Your task to perform on an android device: What's the weather? Image 0: 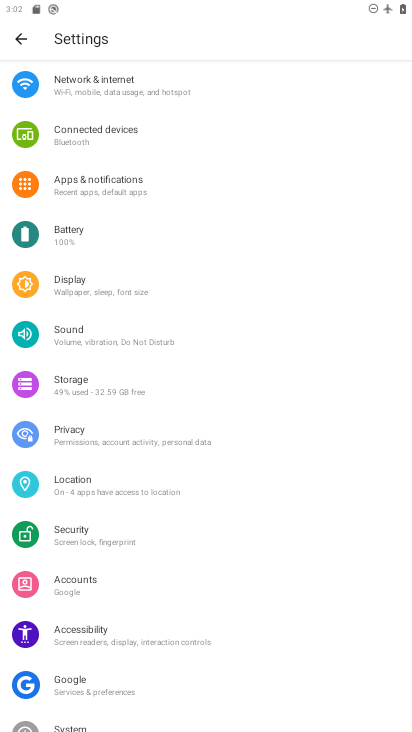
Step 0: press home button
Your task to perform on an android device: What's the weather? Image 1: 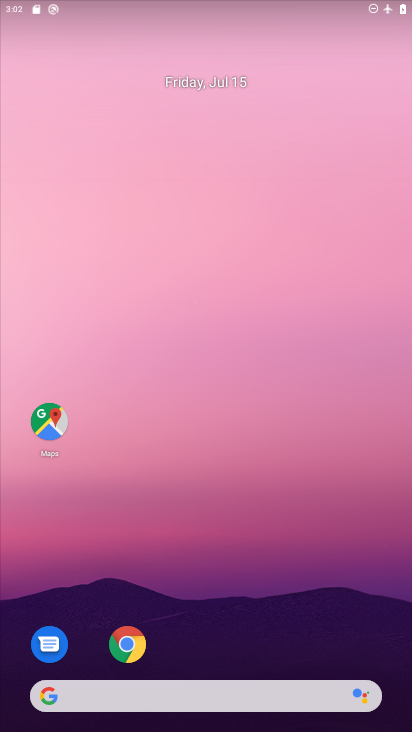
Step 1: click (153, 697)
Your task to perform on an android device: What's the weather? Image 2: 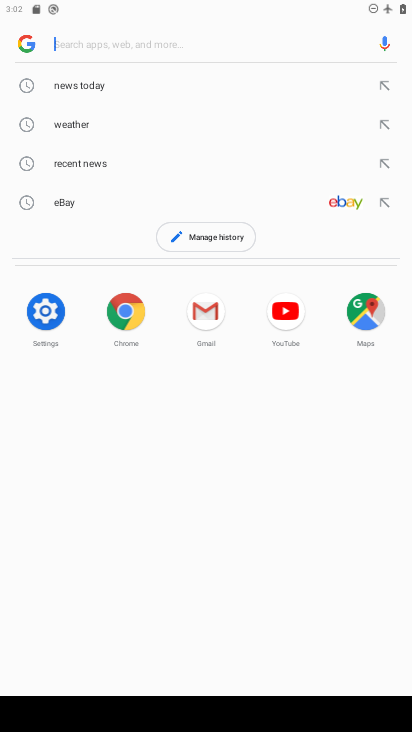
Step 2: click (102, 129)
Your task to perform on an android device: What's the weather? Image 3: 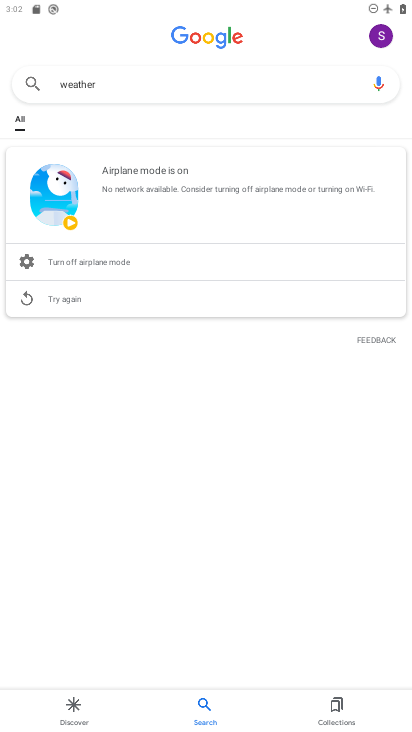
Step 3: drag from (345, 15) to (296, 446)
Your task to perform on an android device: What's the weather? Image 4: 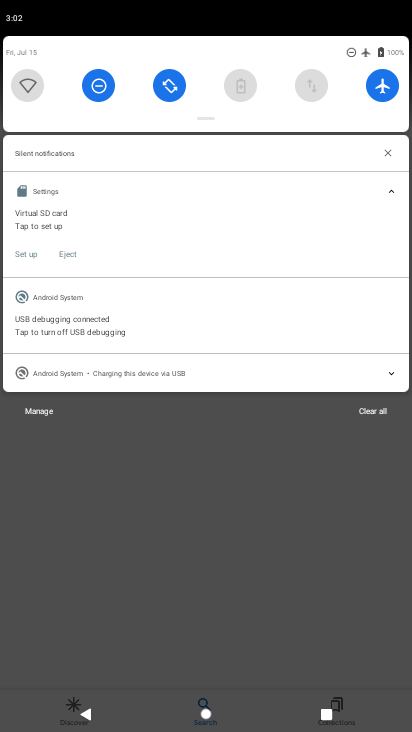
Step 4: click (379, 87)
Your task to perform on an android device: What's the weather? Image 5: 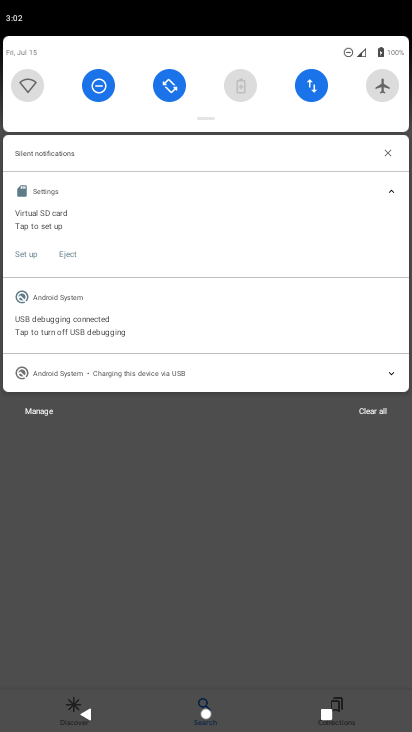
Step 5: task complete